Your task to perform on an android device: turn on priority inbox in the gmail app Image 0: 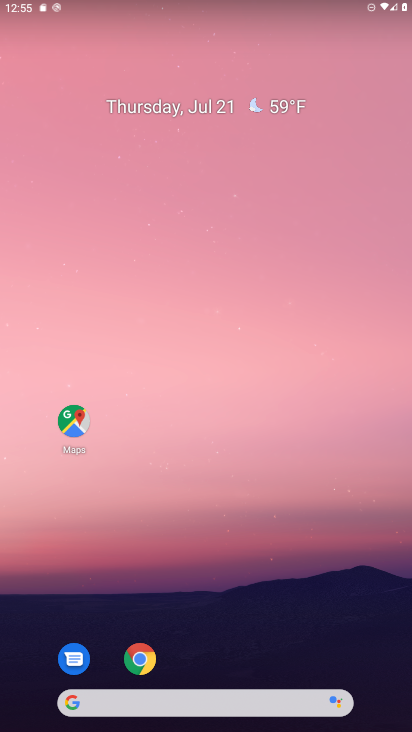
Step 0: drag from (14, 551) to (242, 56)
Your task to perform on an android device: turn on priority inbox in the gmail app Image 1: 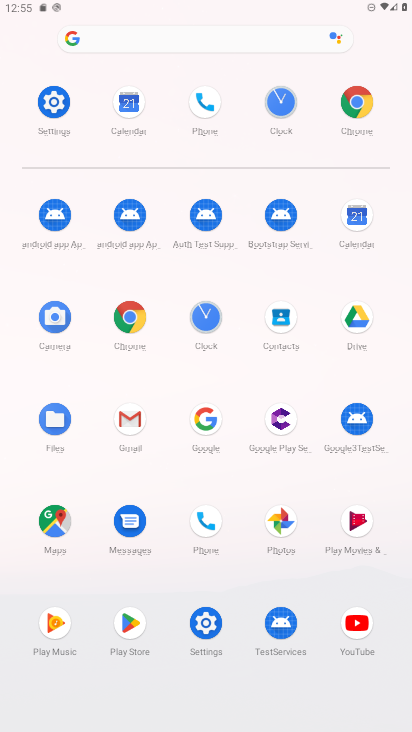
Step 1: click (129, 417)
Your task to perform on an android device: turn on priority inbox in the gmail app Image 2: 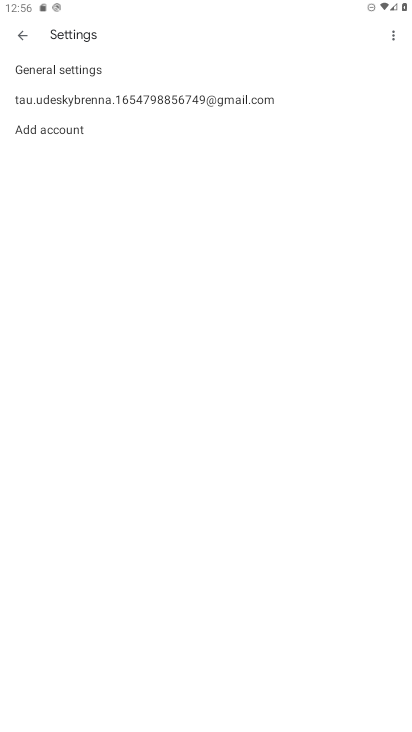
Step 2: click (106, 91)
Your task to perform on an android device: turn on priority inbox in the gmail app Image 3: 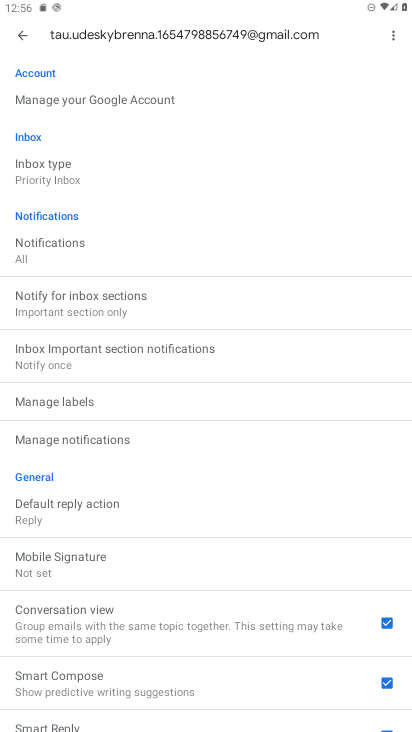
Step 3: task complete